Your task to perform on an android device: install app "Microsoft Outlook" Image 0: 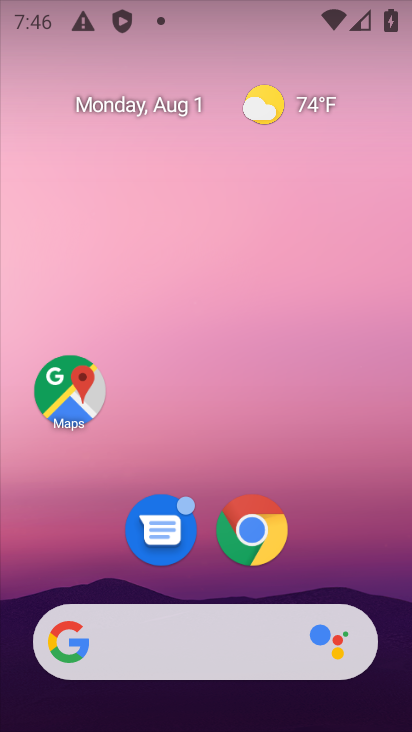
Step 0: drag from (396, 561) to (258, 0)
Your task to perform on an android device: install app "Microsoft Outlook" Image 1: 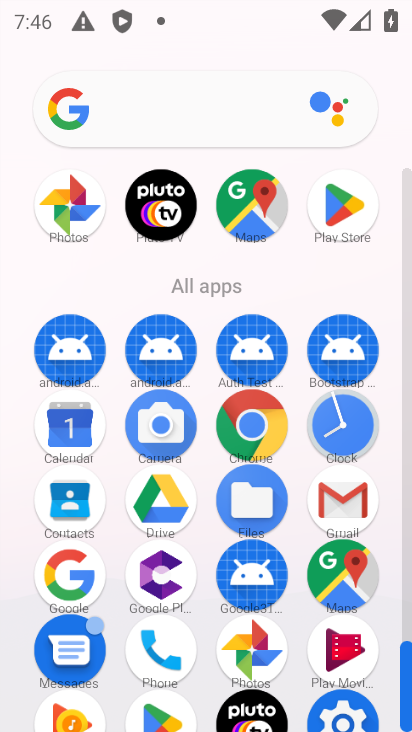
Step 1: click (340, 185)
Your task to perform on an android device: install app "Microsoft Outlook" Image 2: 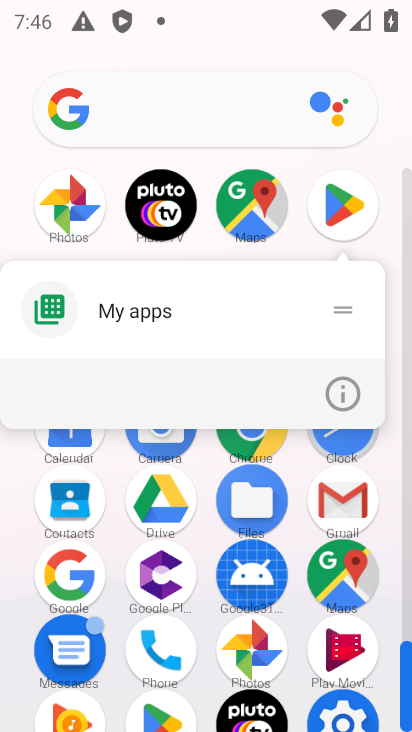
Step 2: click (350, 197)
Your task to perform on an android device: install app "Microsoft Outlook" Image 3: 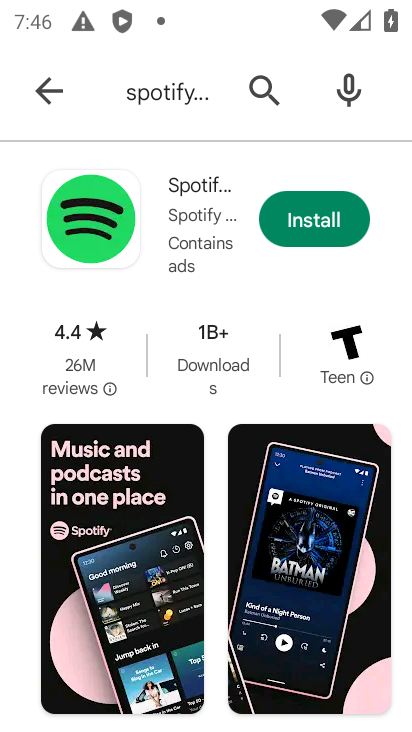
Step 3: click (36, 101)
Your task to perform on an android device: install app "Microsoft Outlook" Image 4: 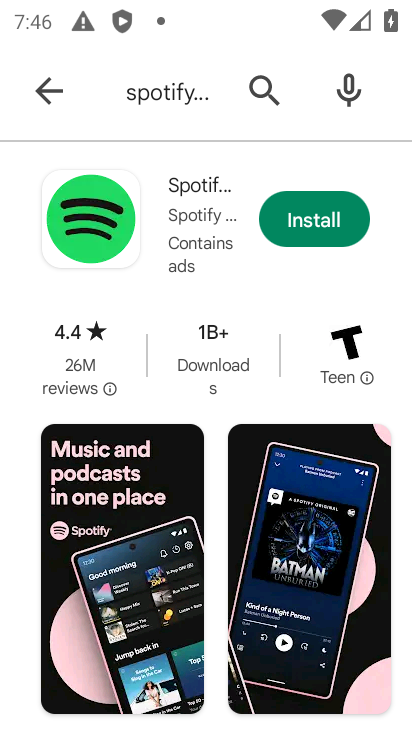
Step 4: click (253, 96)
Your task to perform on an android device: install app "Microsoft Outlook" Image 5: 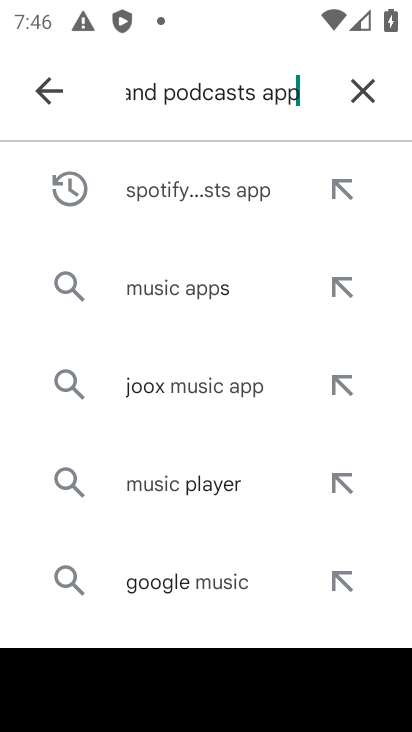
Step 5: click (370, 93)
Your task to perform on an android device: install app "Microsoft Outlook" Image 6: 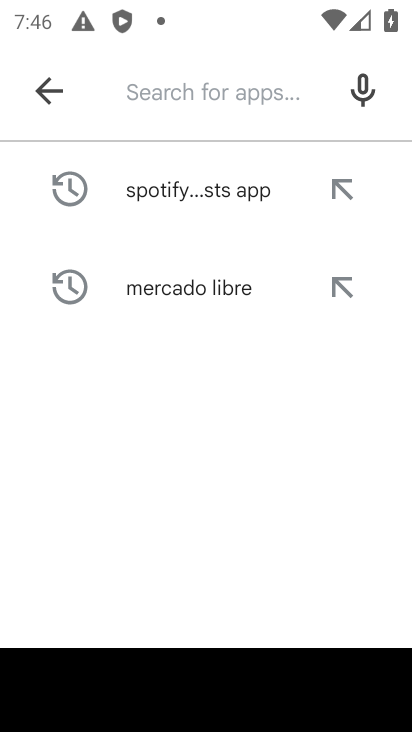
Step 6: type "Microsoft Outlook""
Your task to perform on an android device: install app "Microsoft Outlook" Image 7: 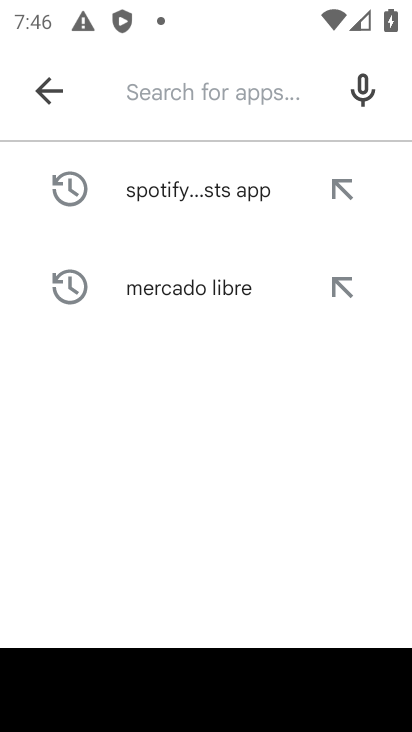
Step 7: type "Microsoft Outlook""
Your task to perform on an android device: install app "Microsoft Outlook" Image 8: 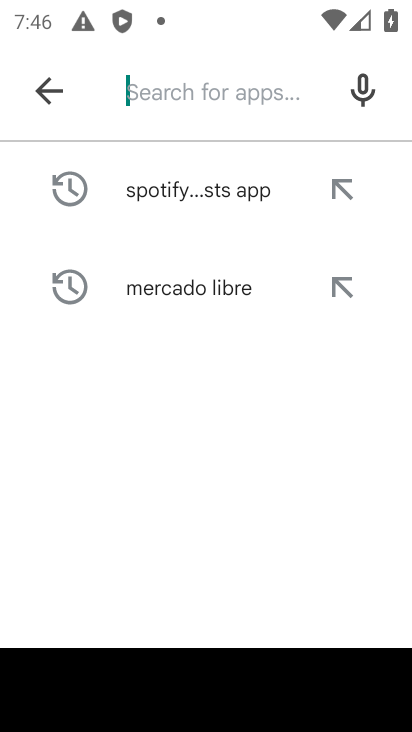
Step 8: click (144, 92)
Your task to perform on an android device: install app "Microsoft Outlook" Image 9: 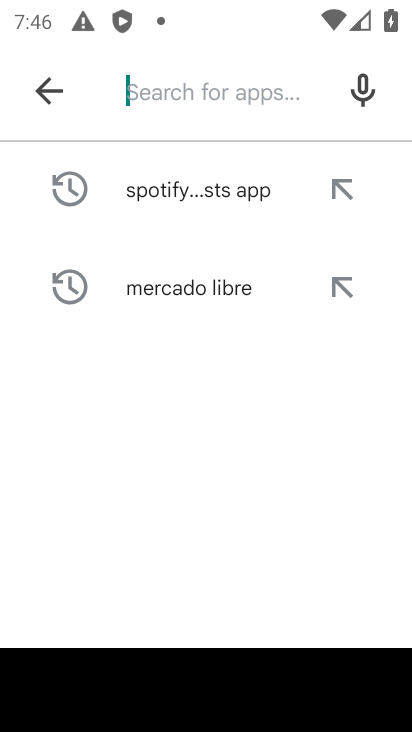
Step 9: type "Microsoft Outlook""
Your task to perform on an android device: install app "Microsoft Outlook" Image 10: 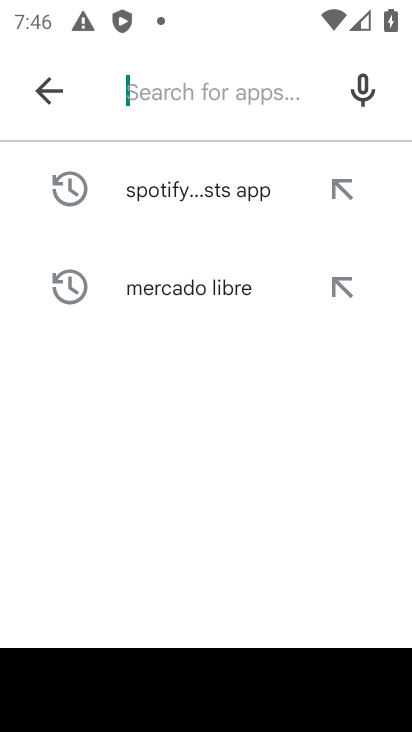
Step 10: press enter
Your task to perform on an android device: install app "Microsoft Outlook" Image 11: 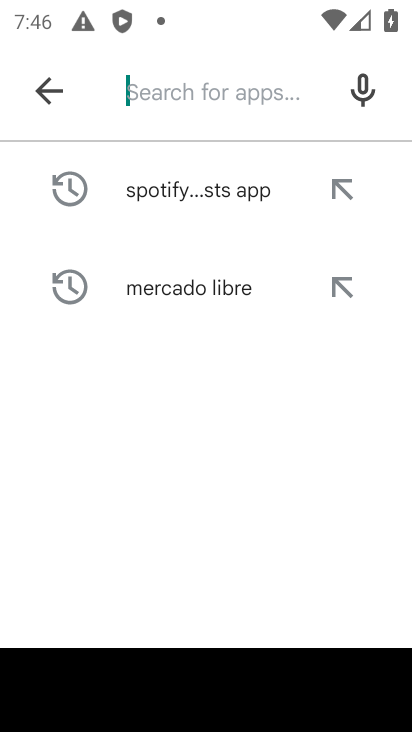
Step 11: type "microsoft outlook"
Your task to perform on an android device: install app "Microsoft Outlook" Image 12: 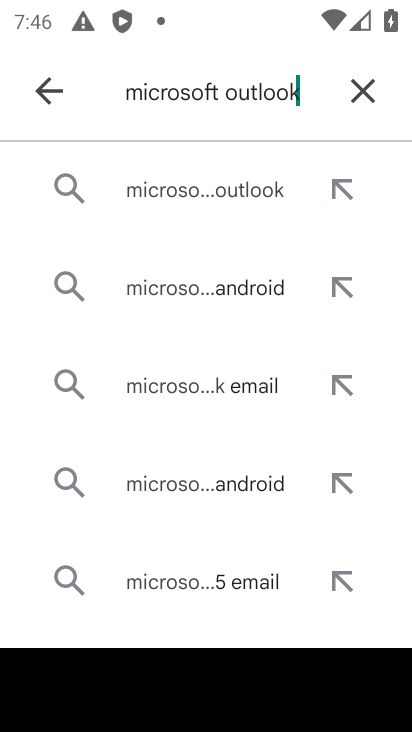
Step 12: click (254, 189)
Your task to perform on an android device: install app "Microsoft Outlook" Image 13: 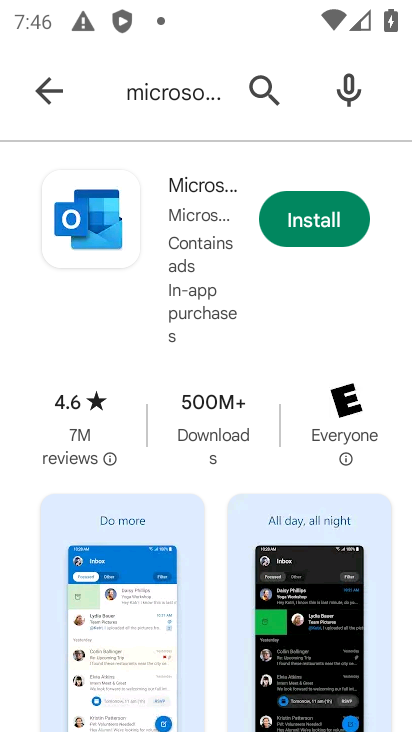
Step 13: click (331, 228)
Your task to perform on an android device: install app "Microsoft Outlook" Image 14: 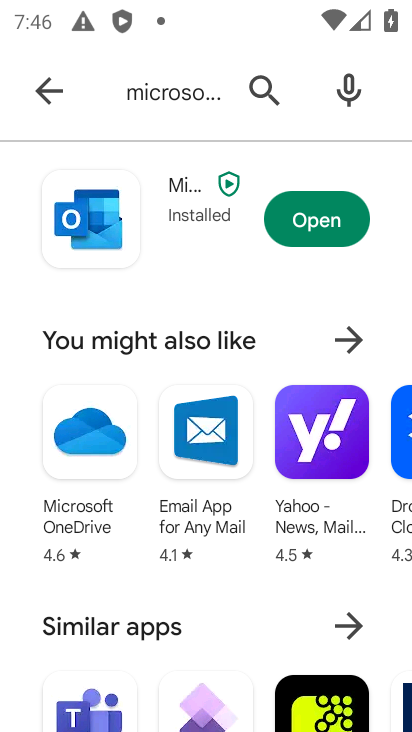
Step 14: task complete